Your task to perform on an android device: change the clock style Image 0: 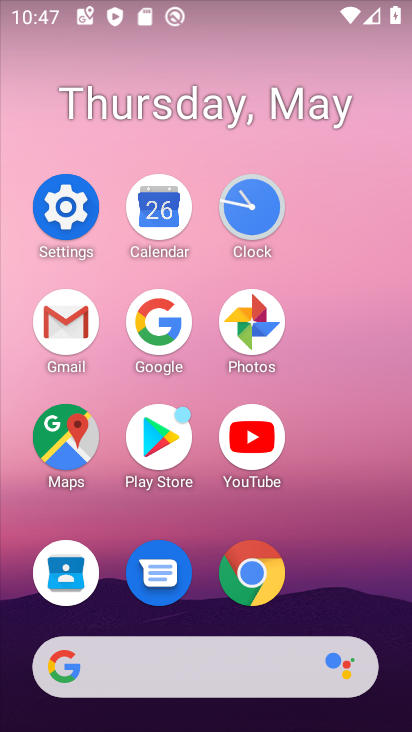
Step 0: click (271, 205)
Your task to perform on an android device: change the clock style Image 1: 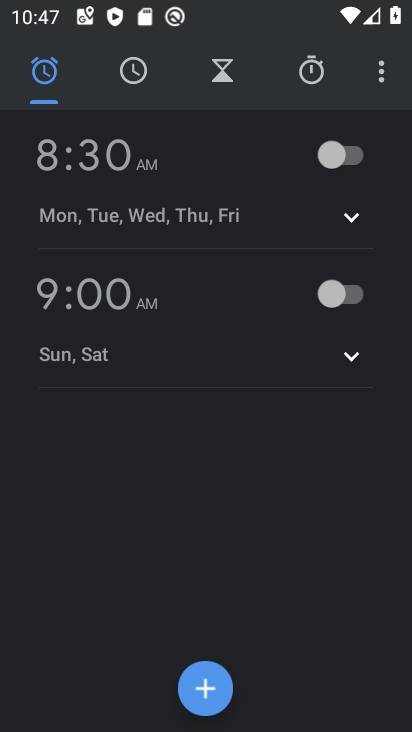
Step 1: click (384, 99)
Your task to perform on an android device: change the clock style Image 2: 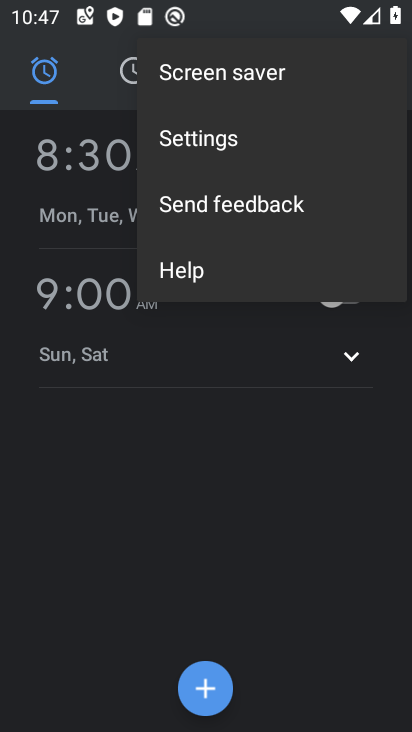
Step 2: click (251, 142)
Your task to perform on an android device: change the clock style Image 3: 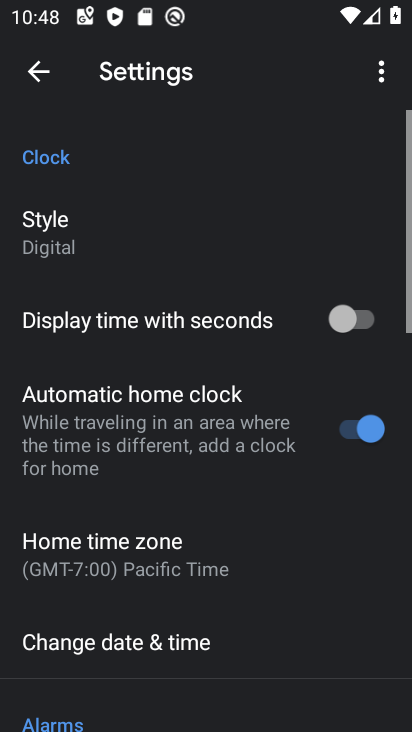
Step 3: click (98, 226)
Your task to perform on an android device: change the clock style Image 4: 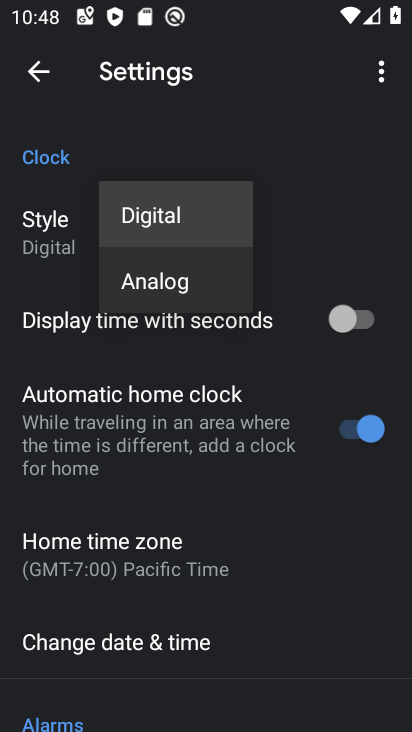
Step 4: click (179, 291)
Your task to perform on an android device: change the clock style Image 5: 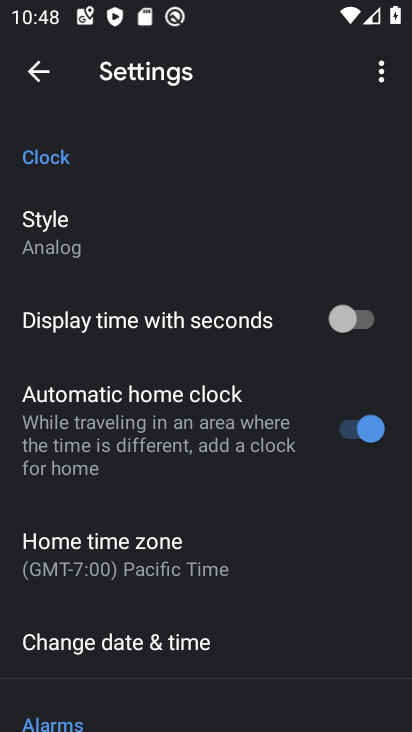
Step 5: task complete